Your task to perform on an android device: Go to wifi settings Image 0: 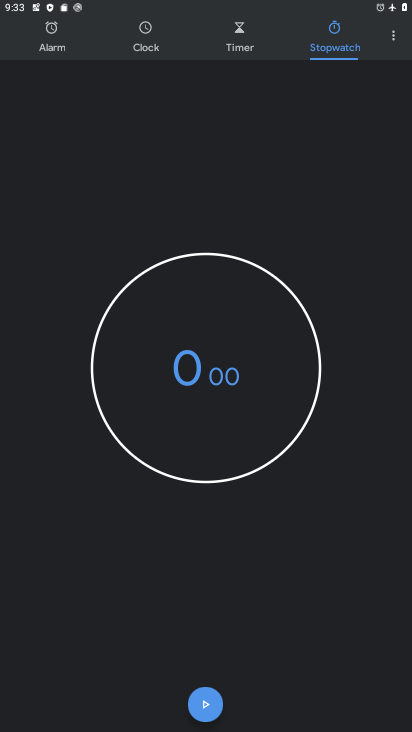
Step 0: press home button
Your task to perform on an android device: Go to wifi settings Image 1: 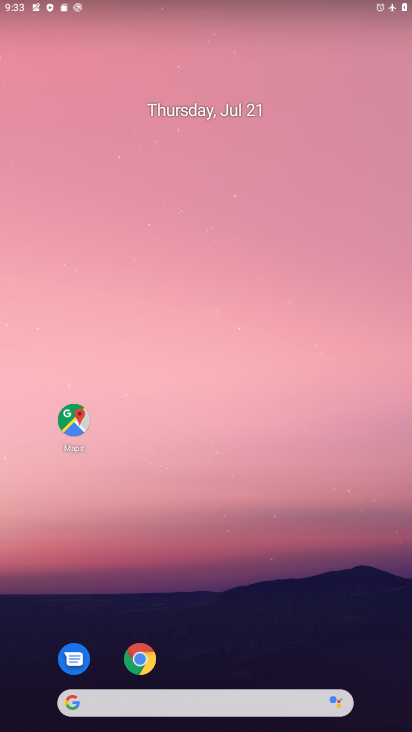
Step 1: drag from (231, 665) to (211, 77)
Your task to perform on an android device: Go to wifi settings Image 2: 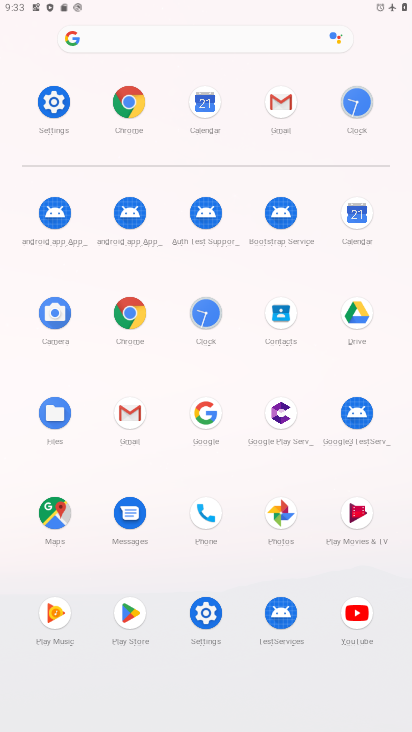
Step 2: click (67, 100)
Your task to perform on an android device: Go to wifi settings Image 3: 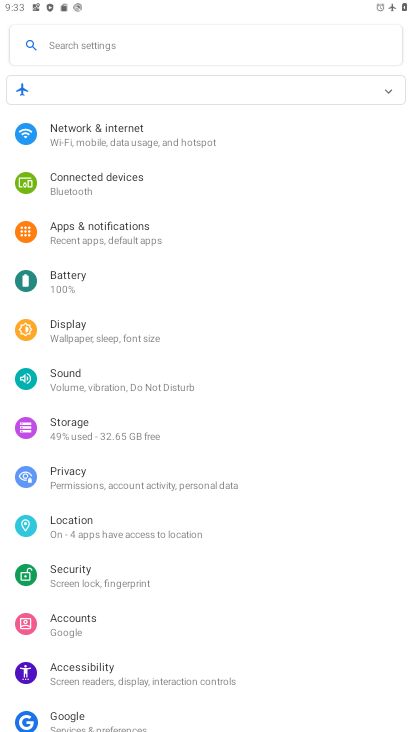
Step 3: click (126, 131)
Your task to perform on an android device: Go to wifi settings Image 4: 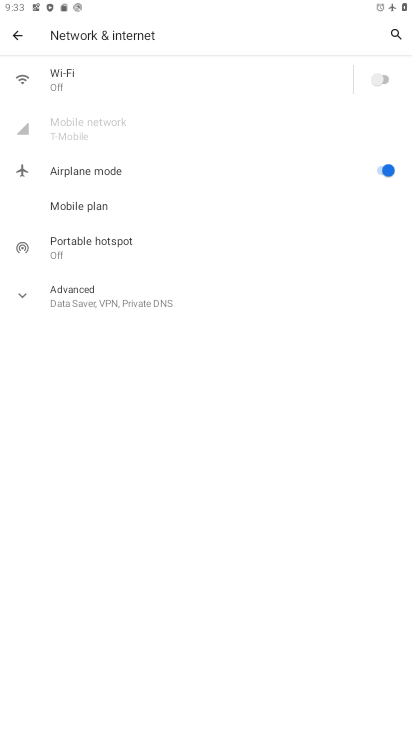
Step 4: click (263, 80)
Your task to perform on an android device: Go to wifi settings Image 5: 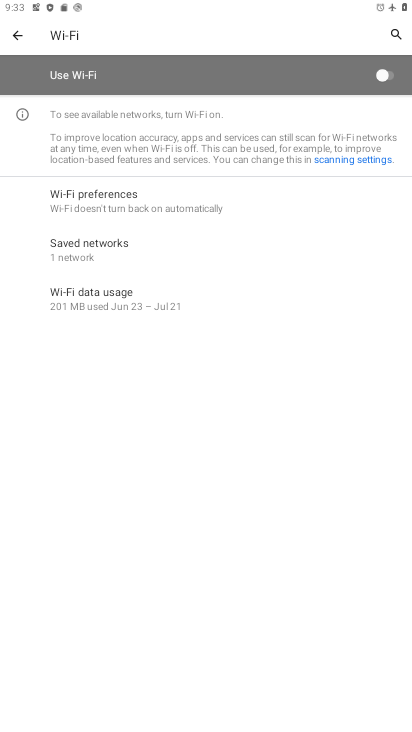
Step 5: task complete